Your task to perform on an android device: View the shopping cart on amazon. Add "usb-c" to the cart on amazon, then select checkout. Image 0: 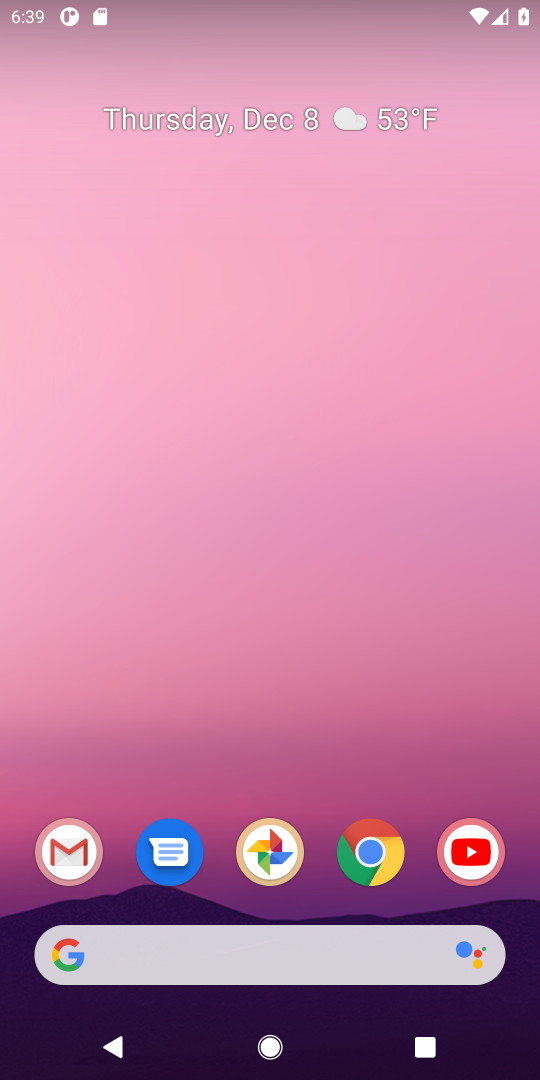
Step 0: click (302, 936)
Your task to perform on an android device: View the shopping cart on amazon. Add "usb-c" to the cart on amazon, then select checkout. Image 1: 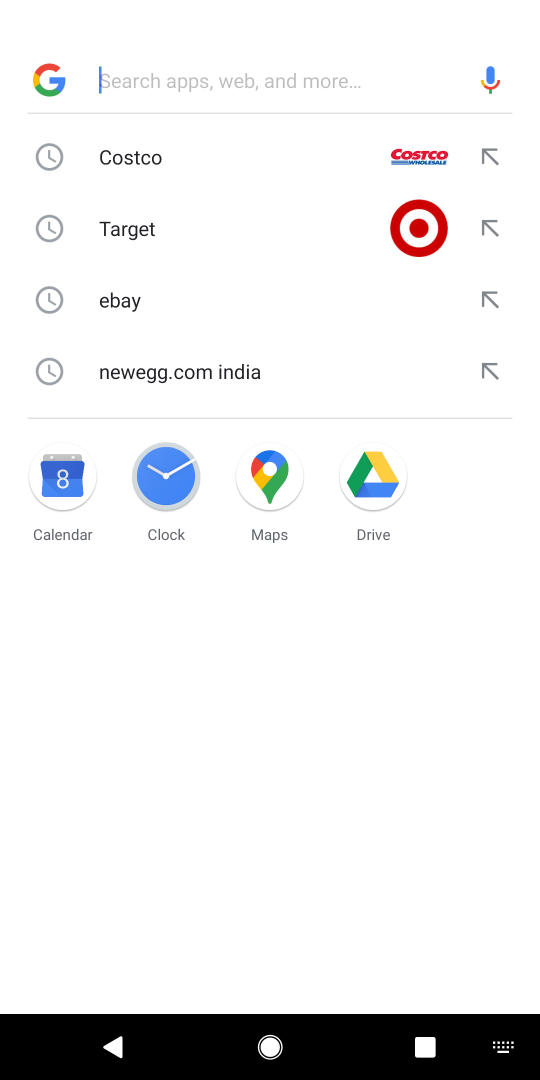
Step 1: type "amazon"
Your task to perform on an android device: View the shopping cart on amazon. Add "usb-c" to the cart on amazon, then select checkout. Image 2: 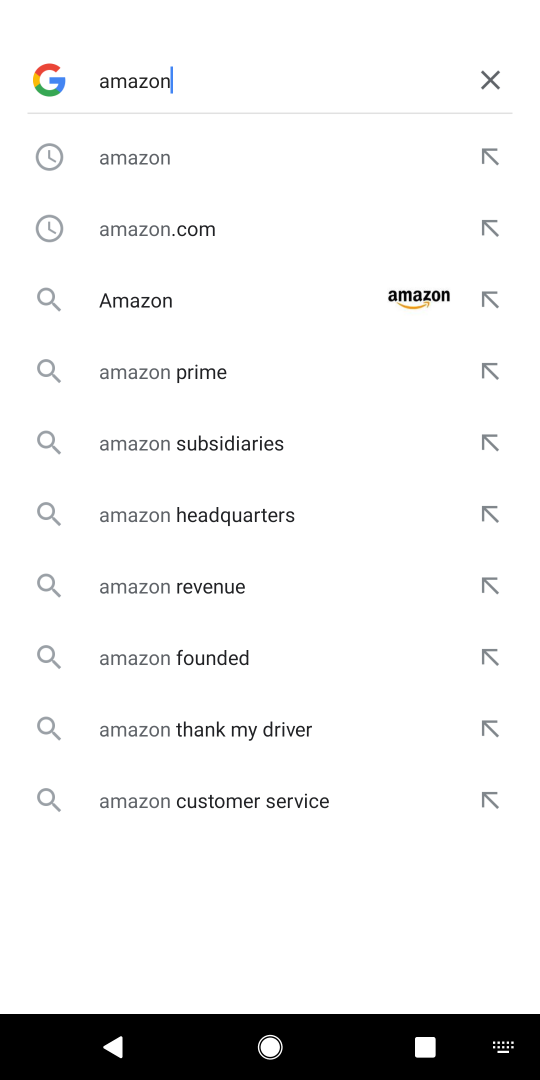
Step 2: click (106, 292)
Your task to perform on an android device: View the shopping cart on amazon. Add "usb-c" to the cart on amazon, then select checkout. Image 3: 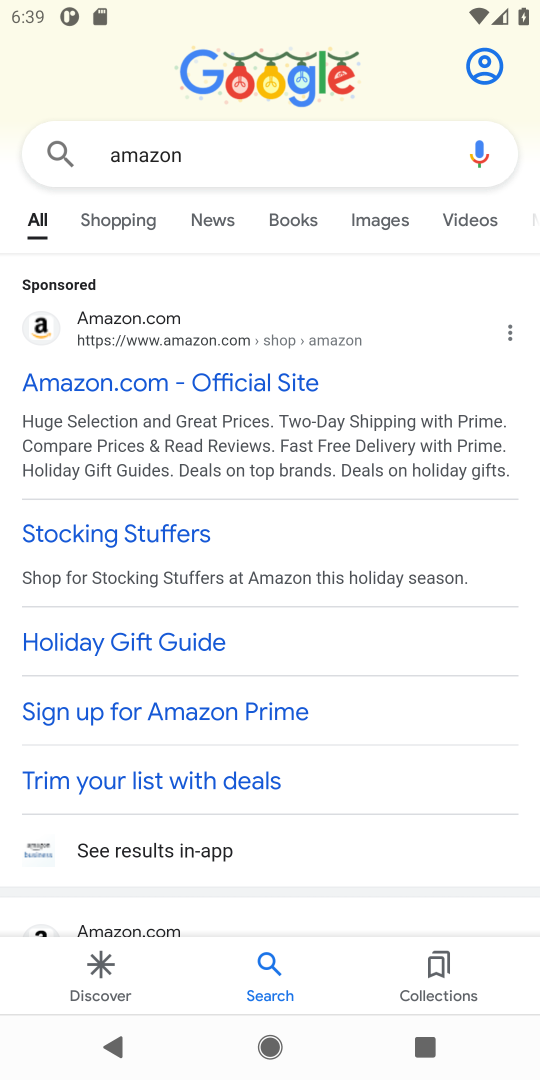
Step 3: click (113, 373)
Your task to perform on an android device: View the shopping cart on amazon. Add "usb-c" to the cart on amazon, then select checkout. Image 4: 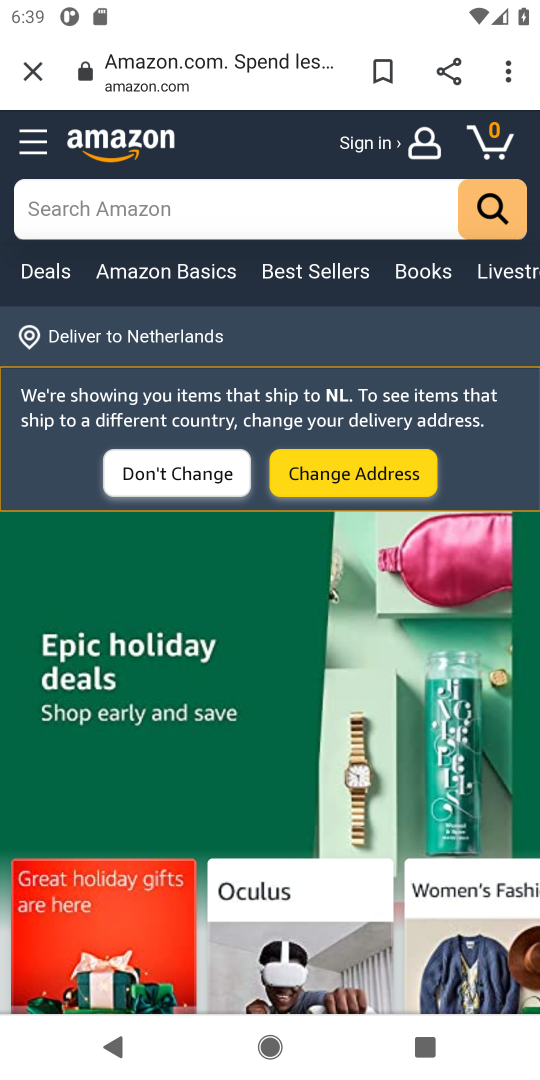
Step 4: click (90, 213)
Your task to perform on an android device: View the shopping cart on amazon. Add "usb-c" to the cart on amazon, then select checkout. Image 5: 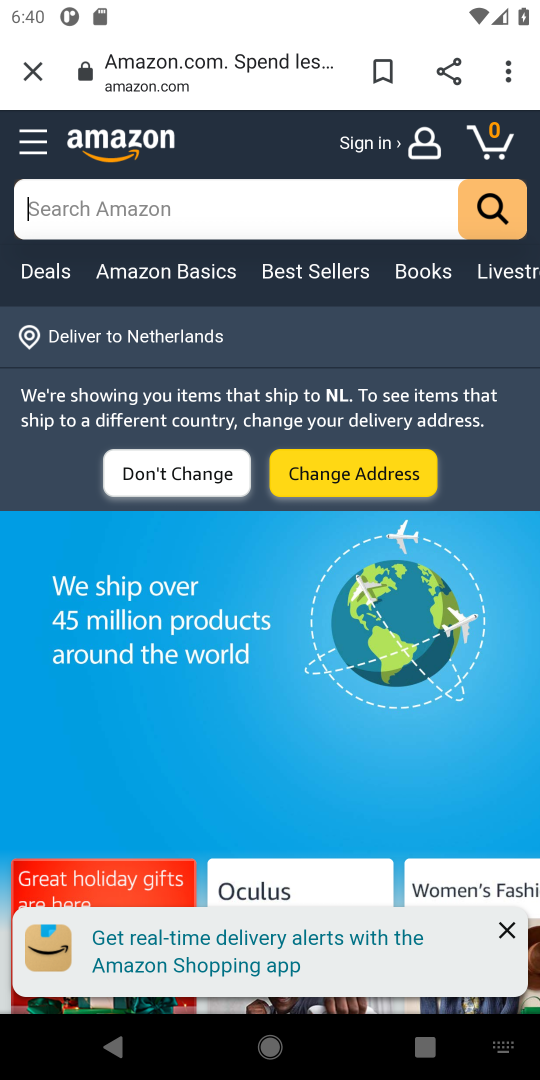
Step 5: type "usb-c"
Your task to perform on an android device: View the shopping cart on amazon. Add "usb-c" to the cart on amazon, then select checkout. Image 6: 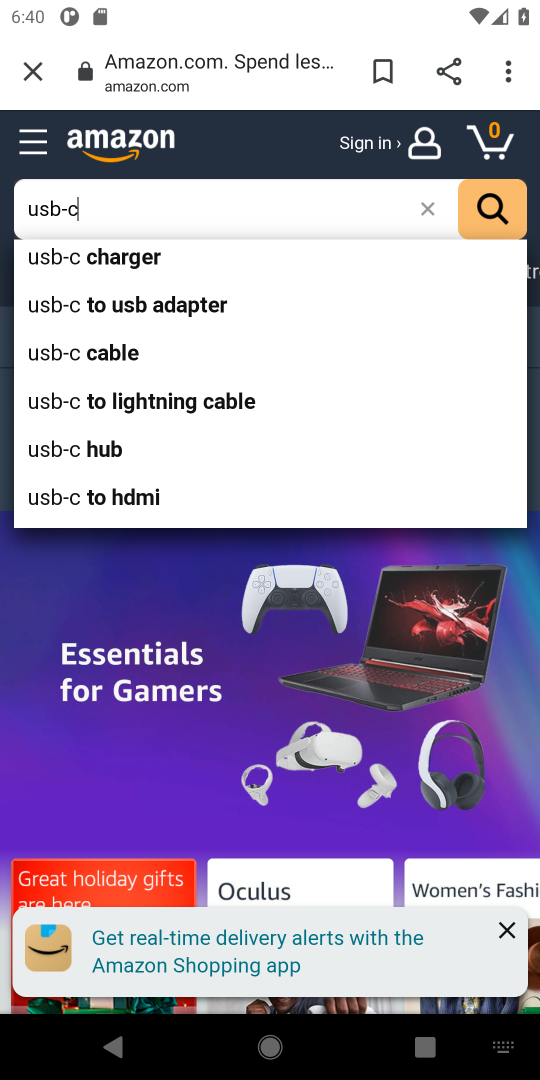
Step 6: click (166, 347)
Your task to perform on an android device: View the shopping cart on amazon. Add "usb-c" to the cart on amazon, then select checkout. Image 7: 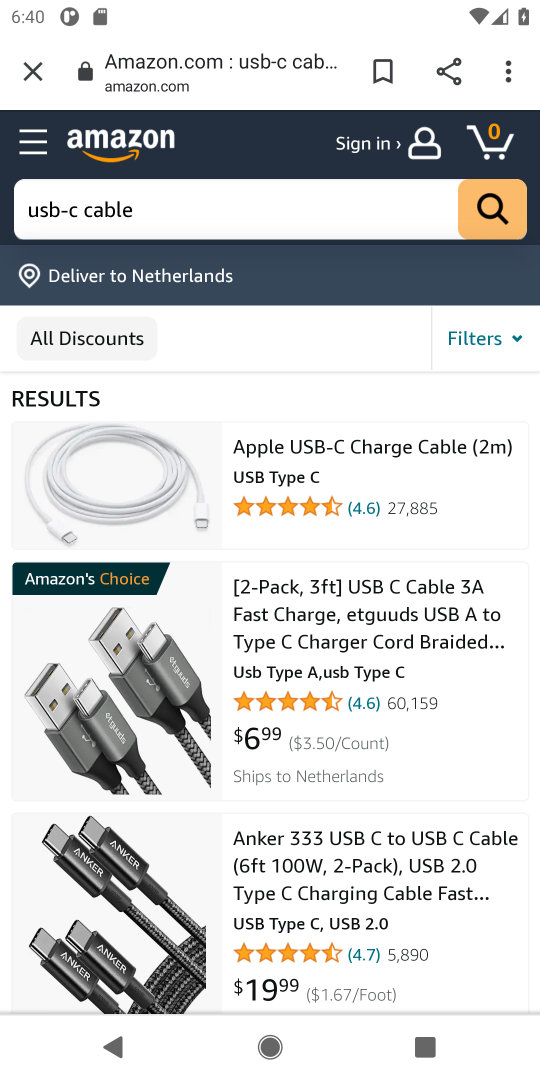
Step 7: click (243, 480)
Your task to perform on an android device: View the shopping cart on amazon. Add "usb-c" to the cart on amazon, then select checkout. Image 8: 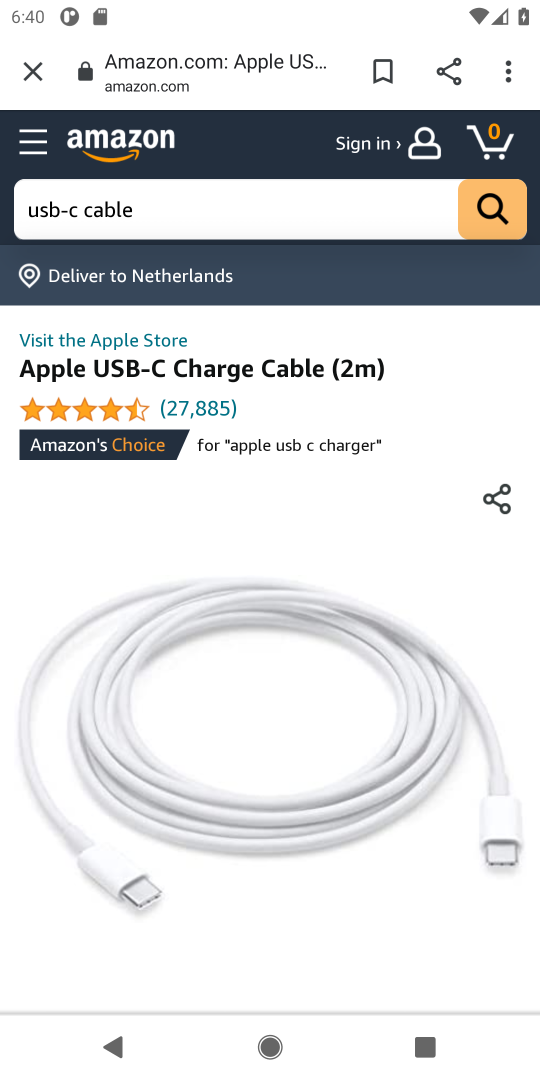
Step 8: drag from (307, 898) to (291, 730)
Your task to perform on an android device: View the shopping cart on amazon. Add "usb-c" to the cart on amazon, then select checkout. Image 9: 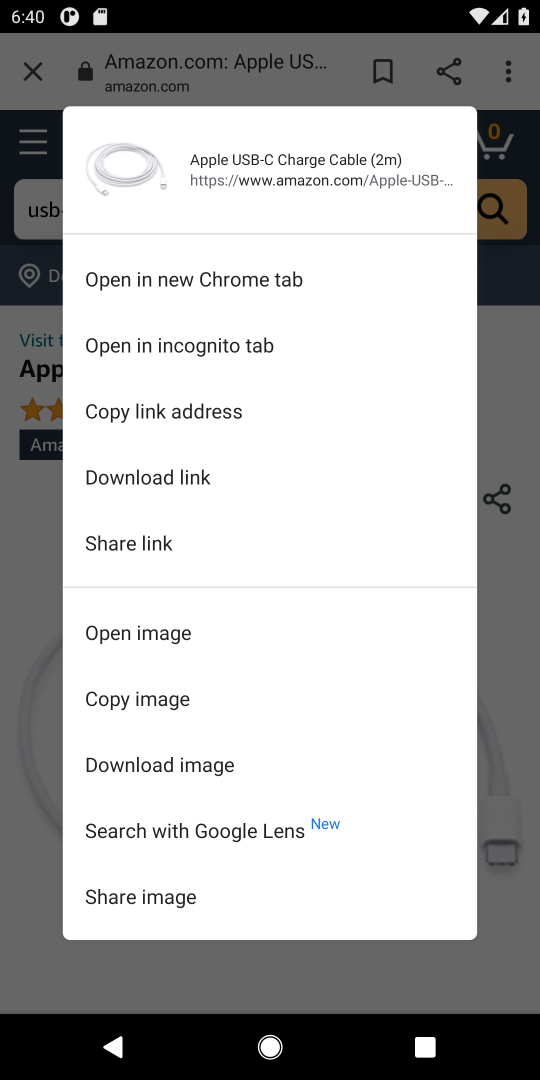
Step 9: click (325, 967)
Your task to perform on an android device: View the shopping cart on amazon. Add "usb-c" to the cart on amazon, then select checkout. Image 10: 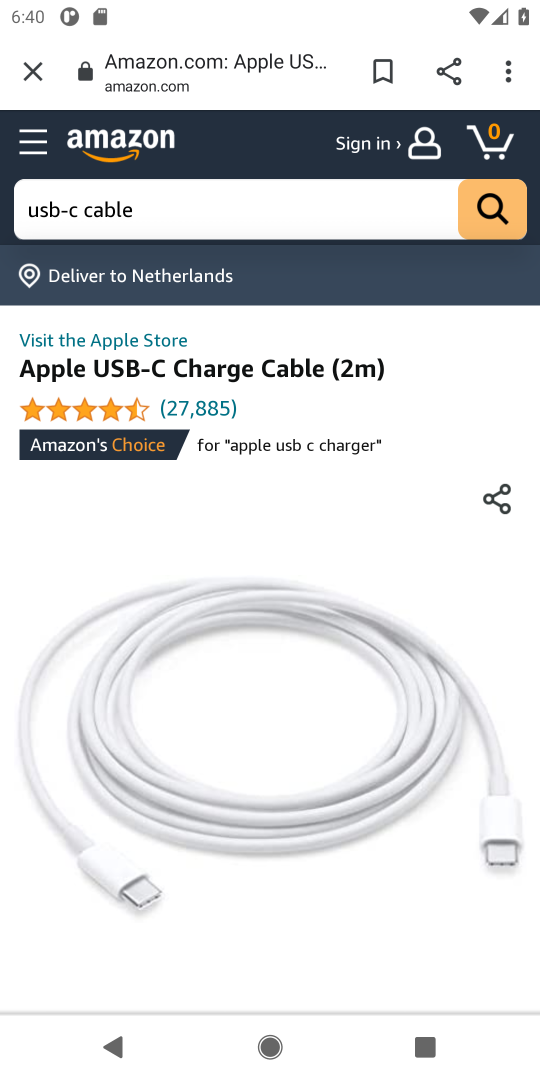
Step 10: drag from (325, 967) to (328, 469)
Your task to perform on an android device: View the shopping cart on amazon. Add "usb-c" to the cart on amazon, then select checkout. Image 11: 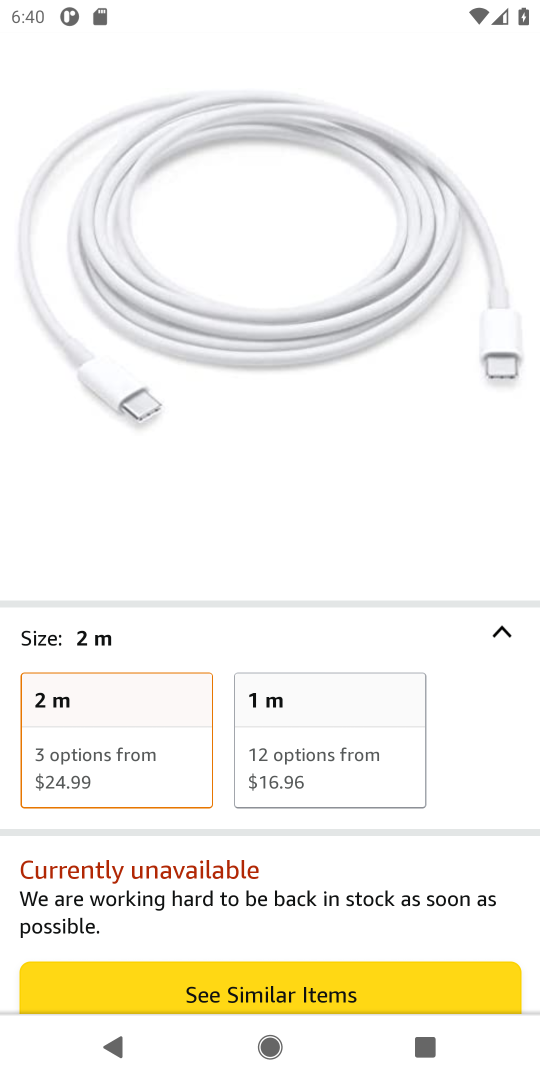
Step 11: drag from (336, 915) to (309, 372)
Your task to perform on an android device: View the shopping cart on amazon. Add "usb-c" to the cart on amazon, then select checkout. Image 12: 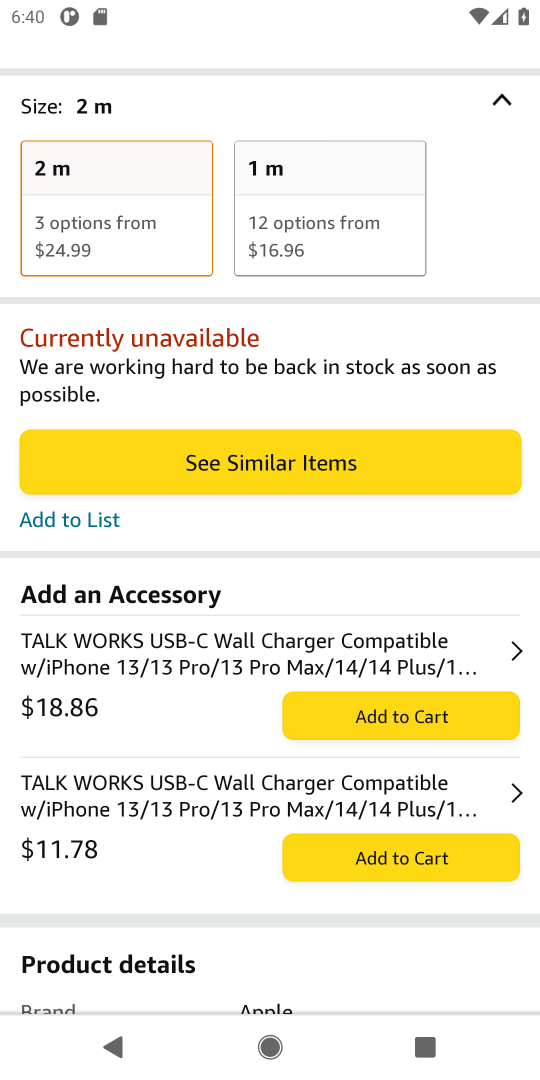
Step 12: click (379, 706)
Your task to perform on an android device: View the shopping cart on amazon. Add "usb-c" to the cart on amazon, then select checkout. Image 13: 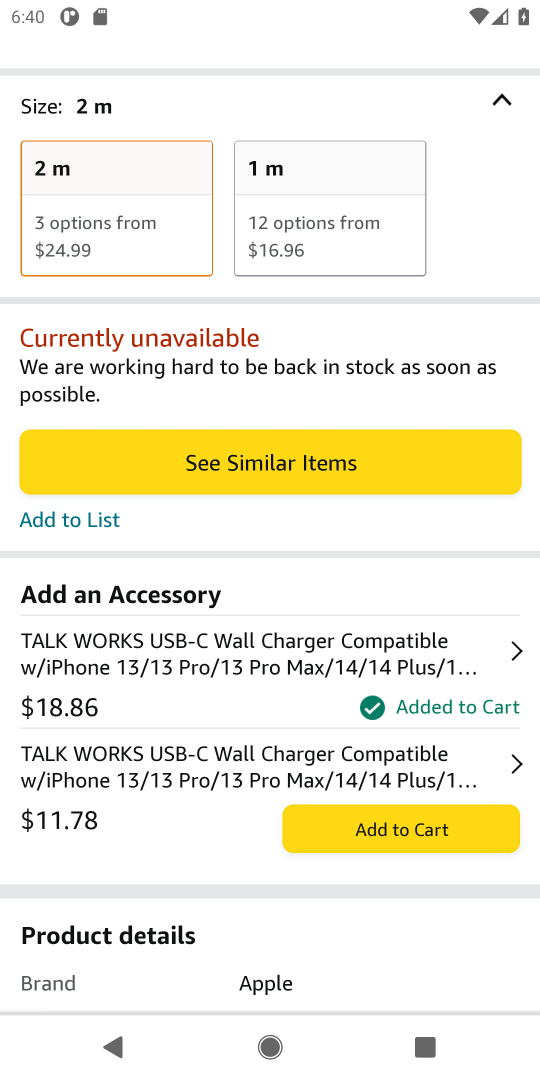
Step 13: click (439, 875)
Your task to perform on an android device: View the shopping cart on amazon. Add "usb-c" to the cart on amazon, then select checkout. Image 14: 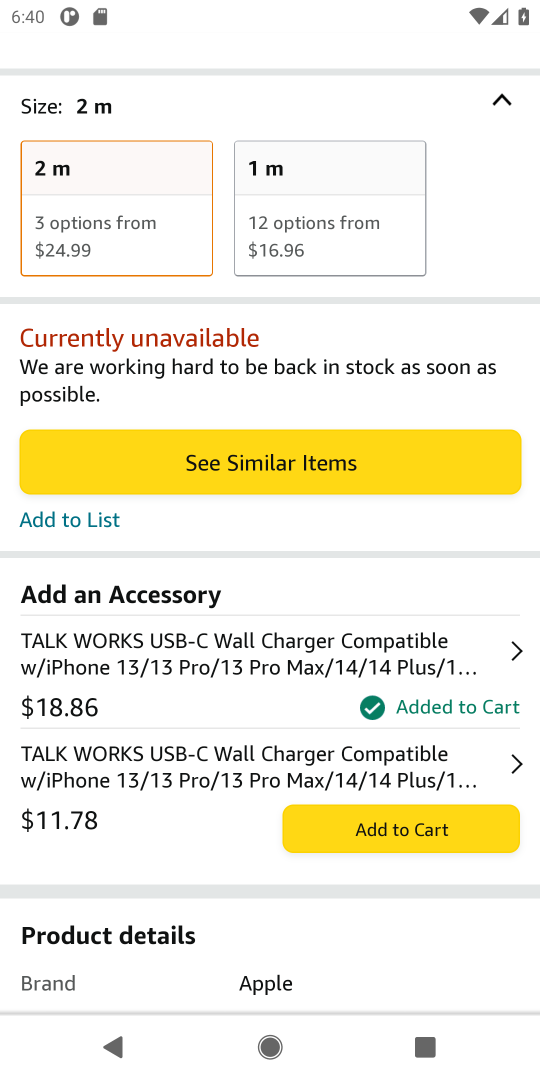
Step 14: task complete